Your task to perform on an android device: Show the shopping cart on walmart.com. Add macbook air to the cart on walmart.com Image 0: 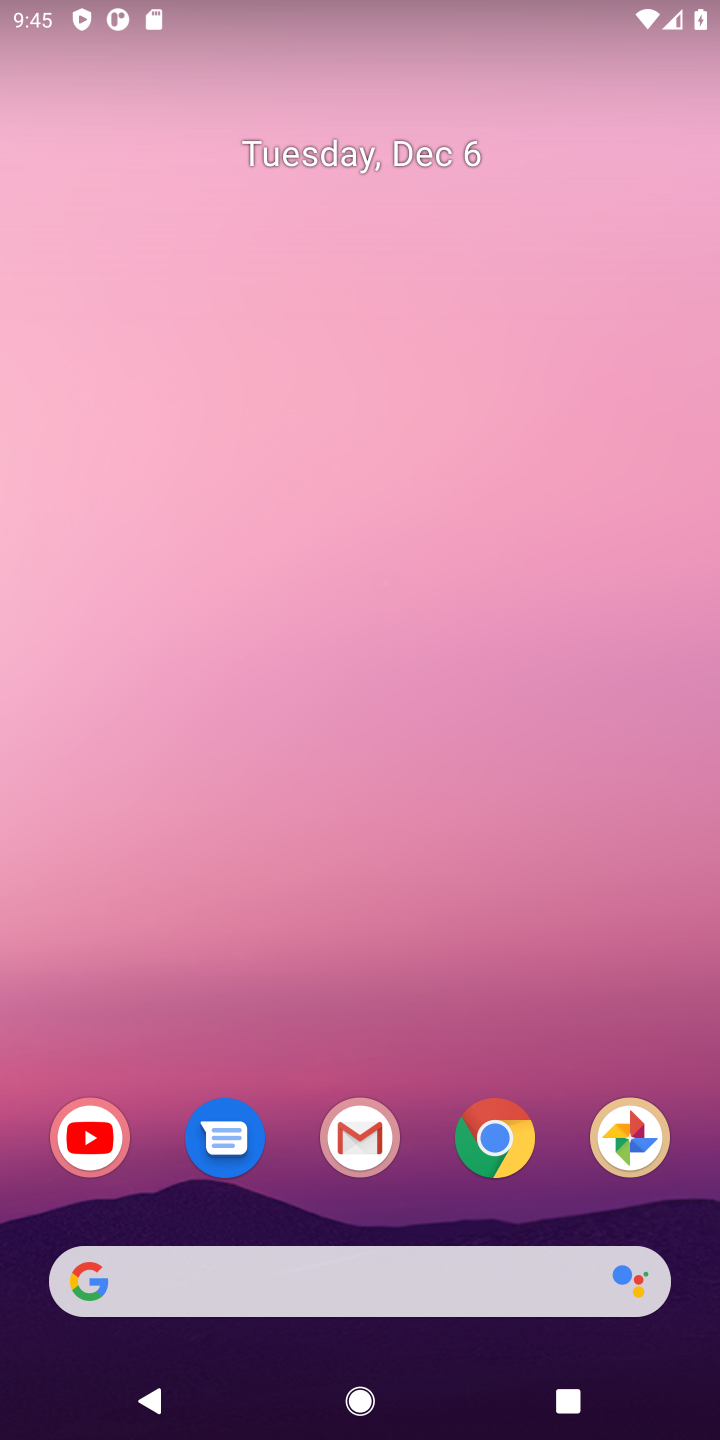
Step 0: click (488, 1139)
Your task to perform on an android device: Show the shopping cart on walmart.com. Add macbook air to the cart on walmart.com Image 1: 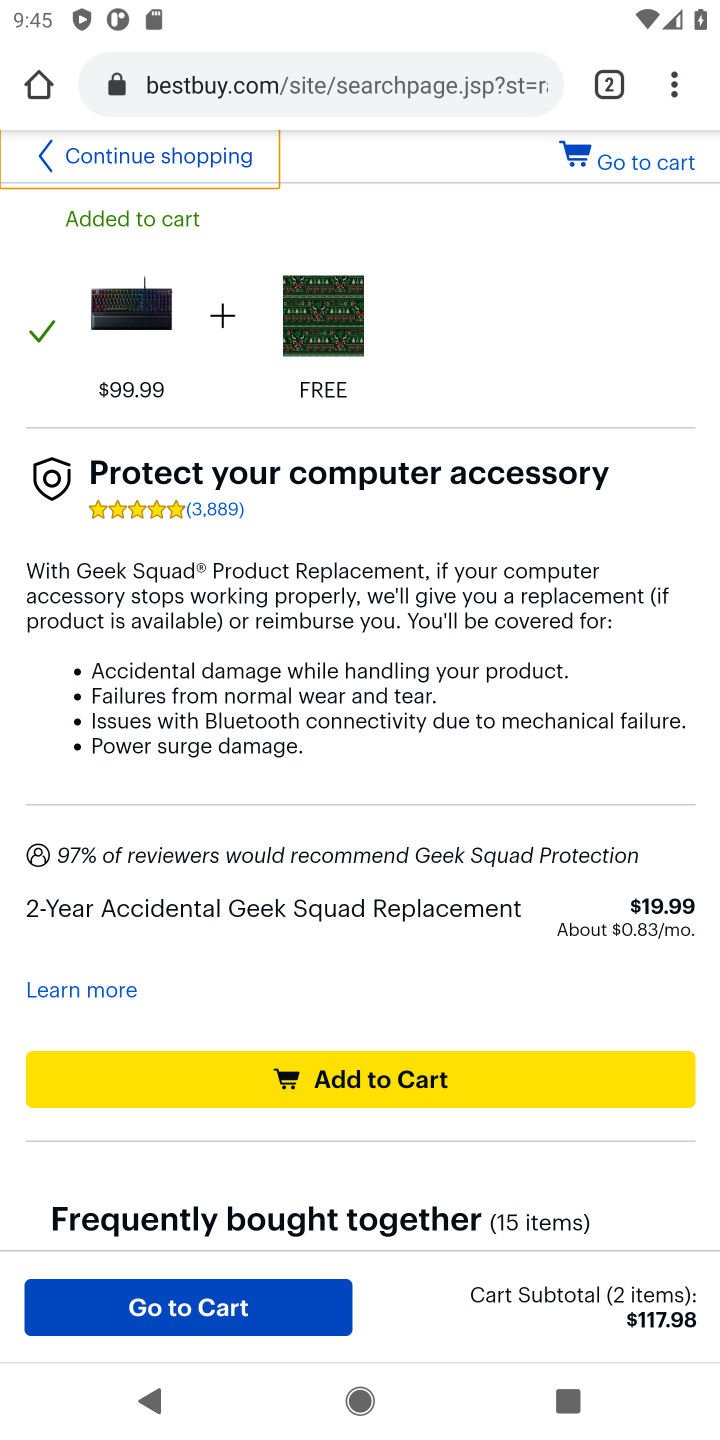
Step 1: click (280, 88)
Your task to perform on an android device: Show the shopping cart on walmart.com. Add macbook air to the cart on walmart.com Image 2: 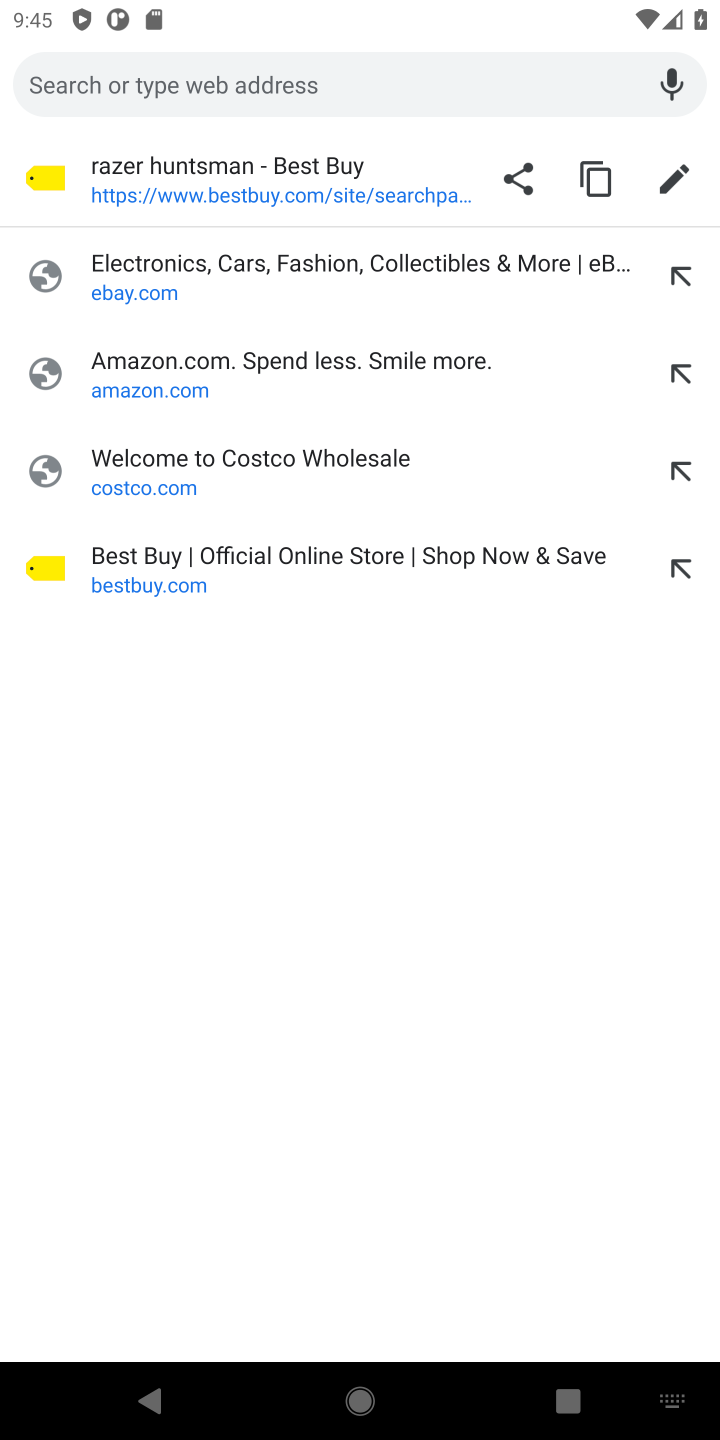
Step 2: type "walmart.com"
Your task to perform on an android device: Show the shopping cart on walmart.com. Add macbook air to the cart on walmart.com Image 3: 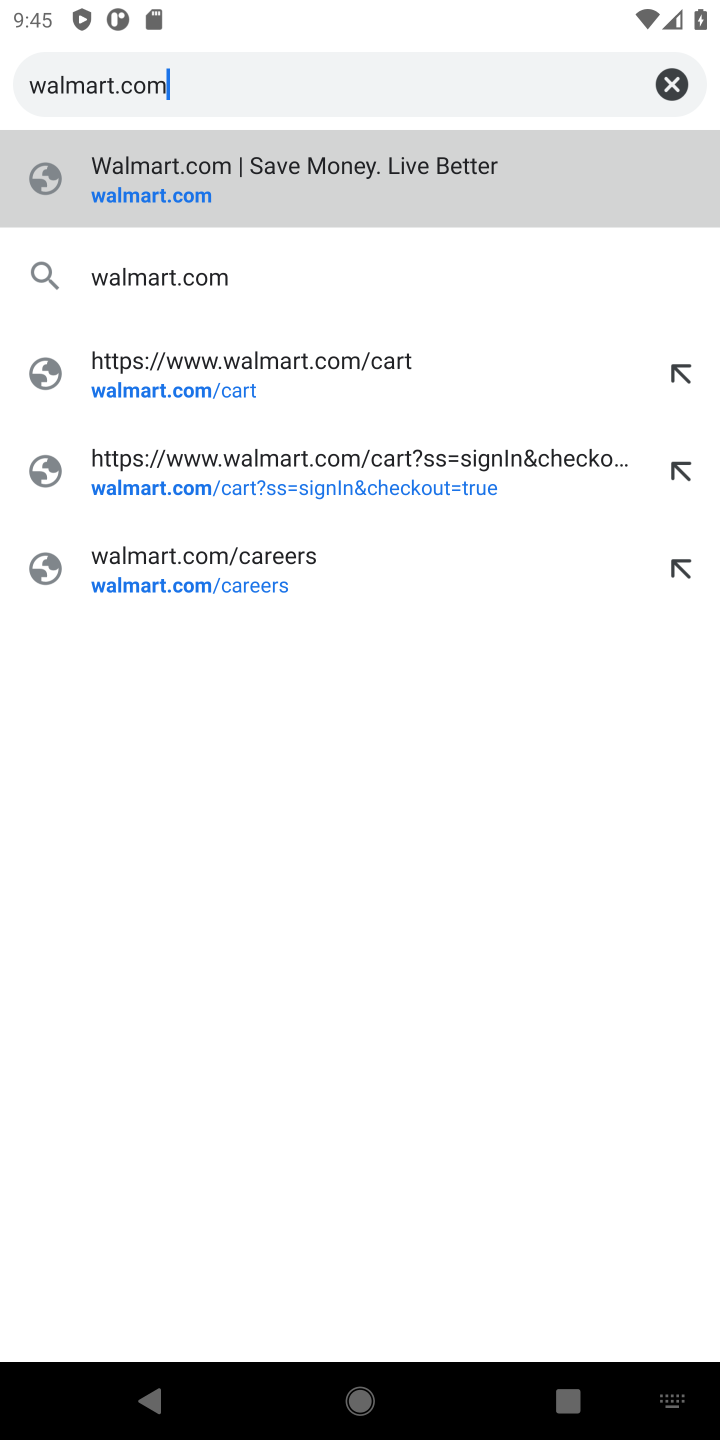
Step 3: click (144, 197)
Your task to perform on an android device: Show the shopping cart on walmart.com. Add macbook air to the cart on walmart.com Image 4: 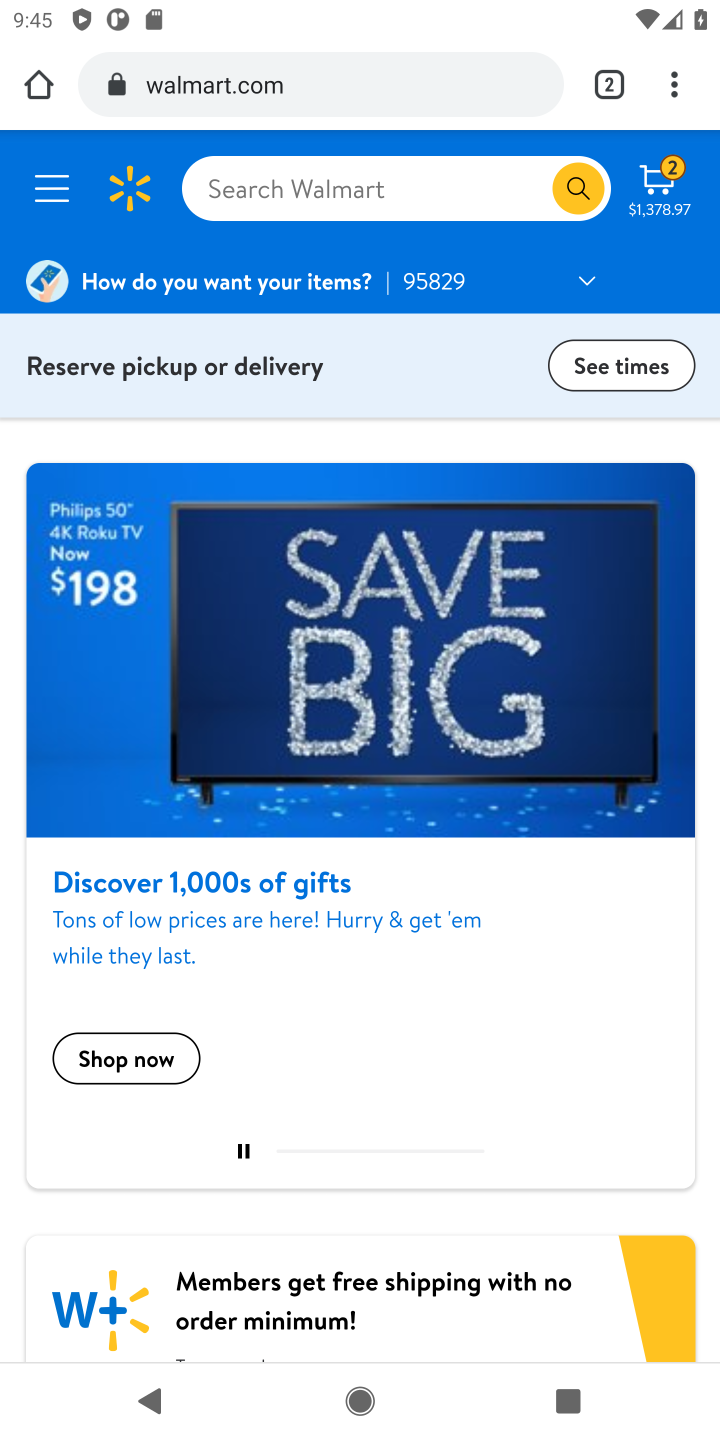
Step 4: click (658, 182)
Your task to perform on an android device: Show the shopping cart on walmart.com. Add macbook air to the cart on walmart.com Image 5: 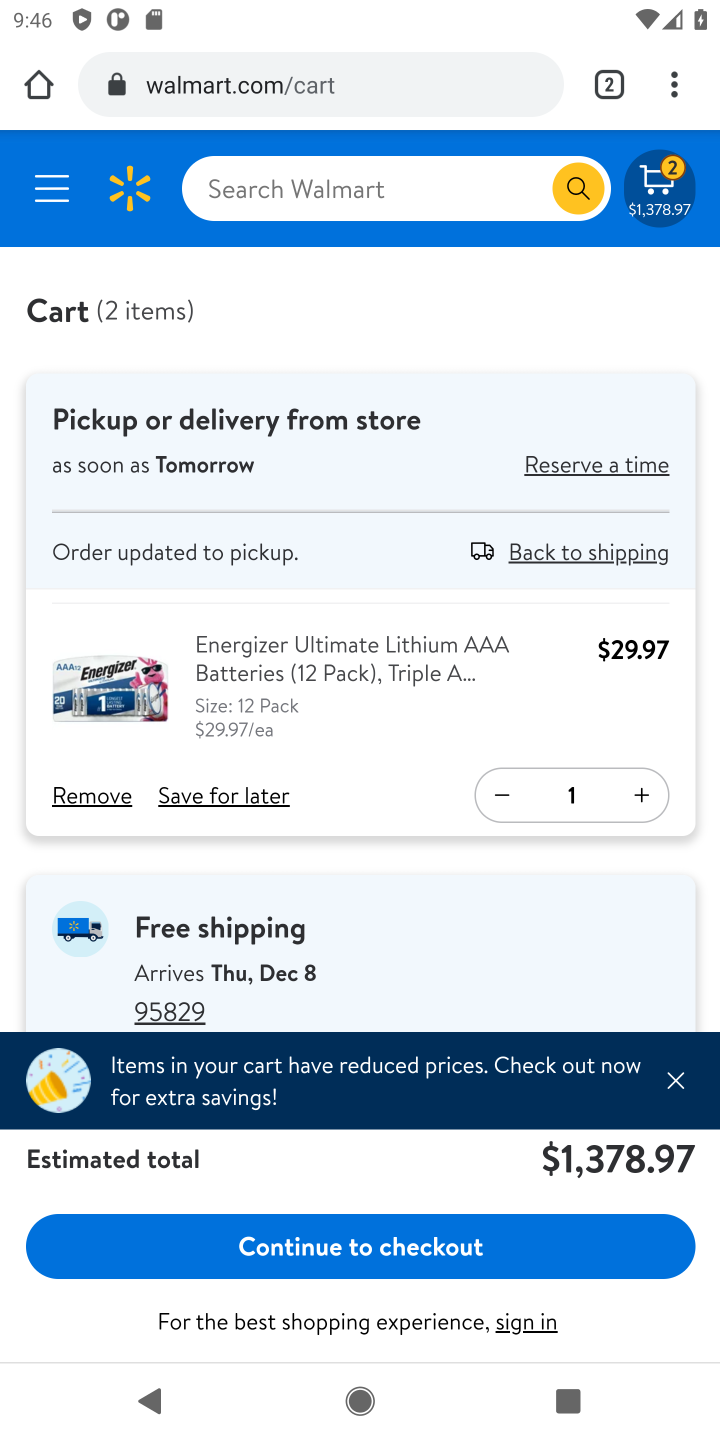
Step 5: click (318, 183)
Your task to perform on an android device: Show the shopping cart on walmart.com. Add macbook air to the cart on walmart.com Image 6: 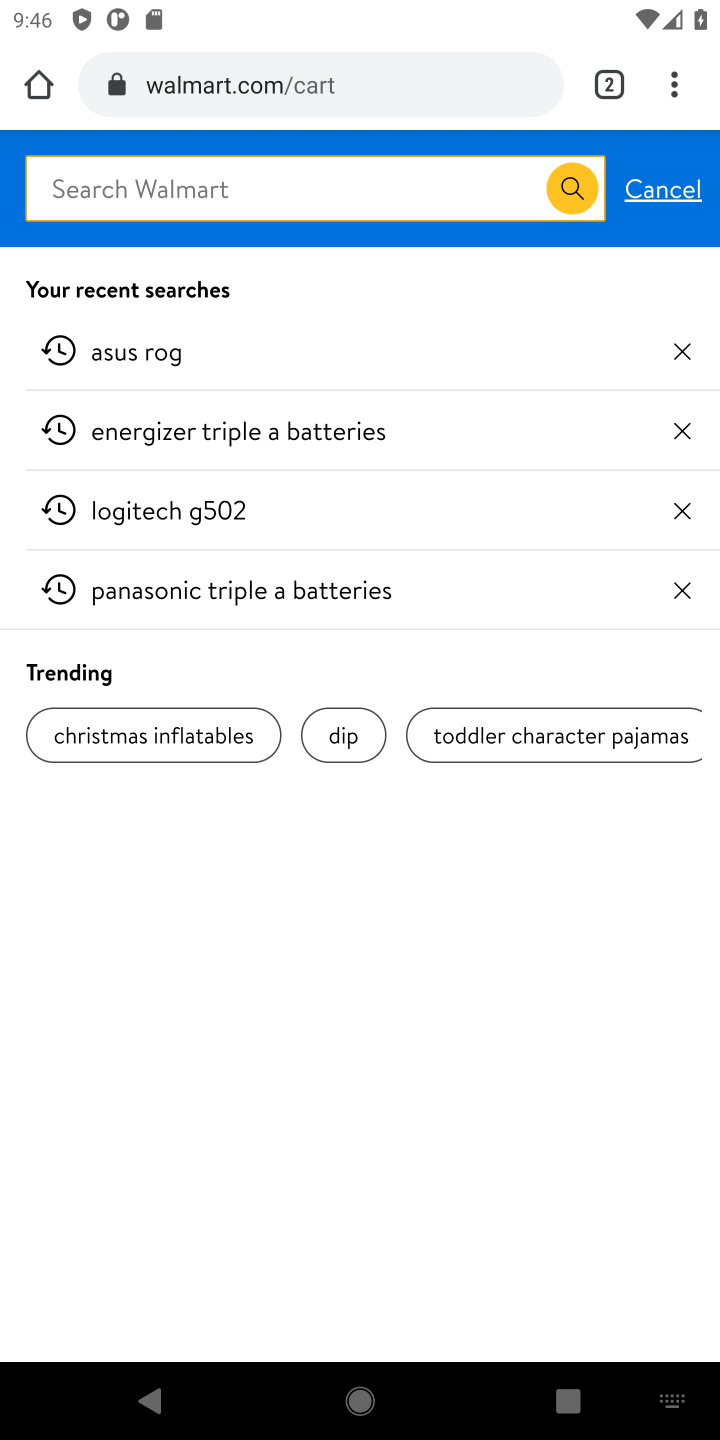
Step 6: type "macbook air"
Your task to perform on an android device: Show the shopping cart on walmart.com. Add macbook air to the cart on walmart.com Image 7: 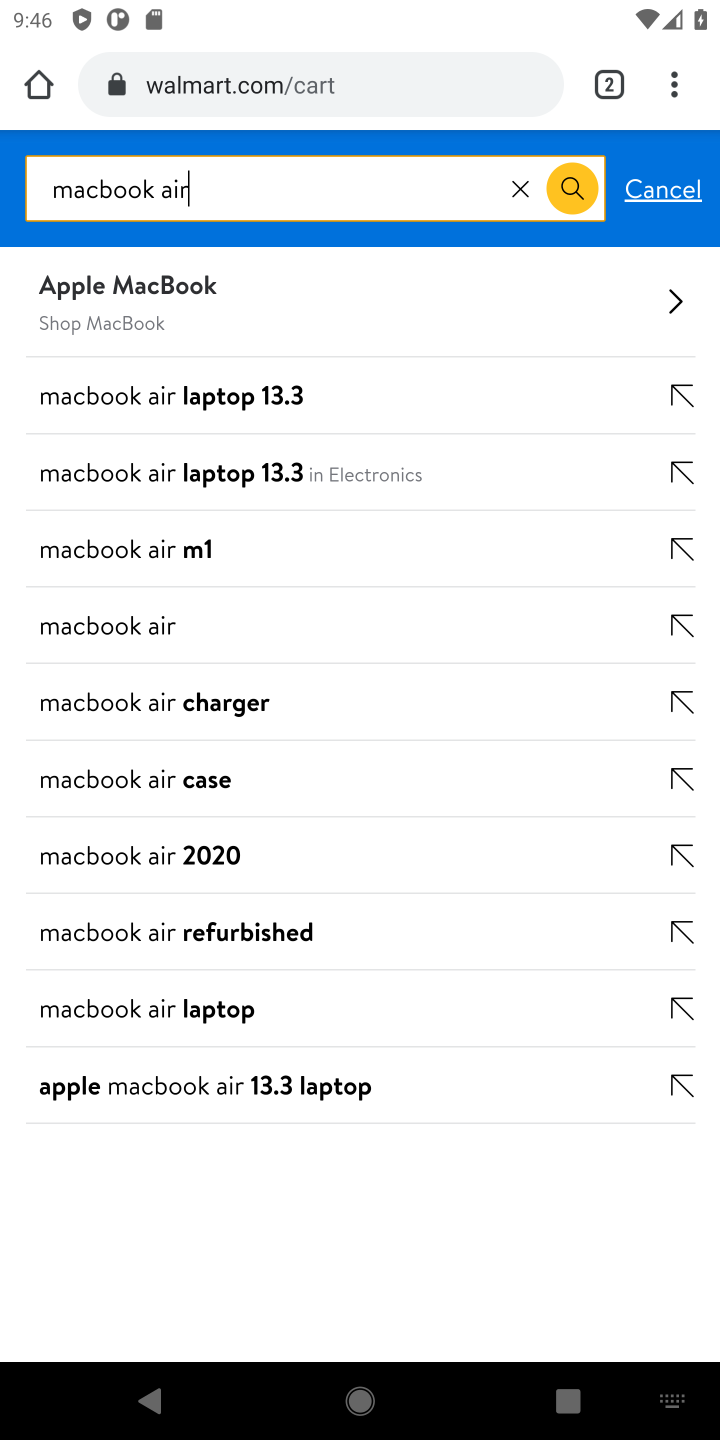
Step 7: click (161, 620)
Your task to perform on an android device: Show the shopping cart on walmart.com. Add macbook air to the cart on walmart.com Image 8: 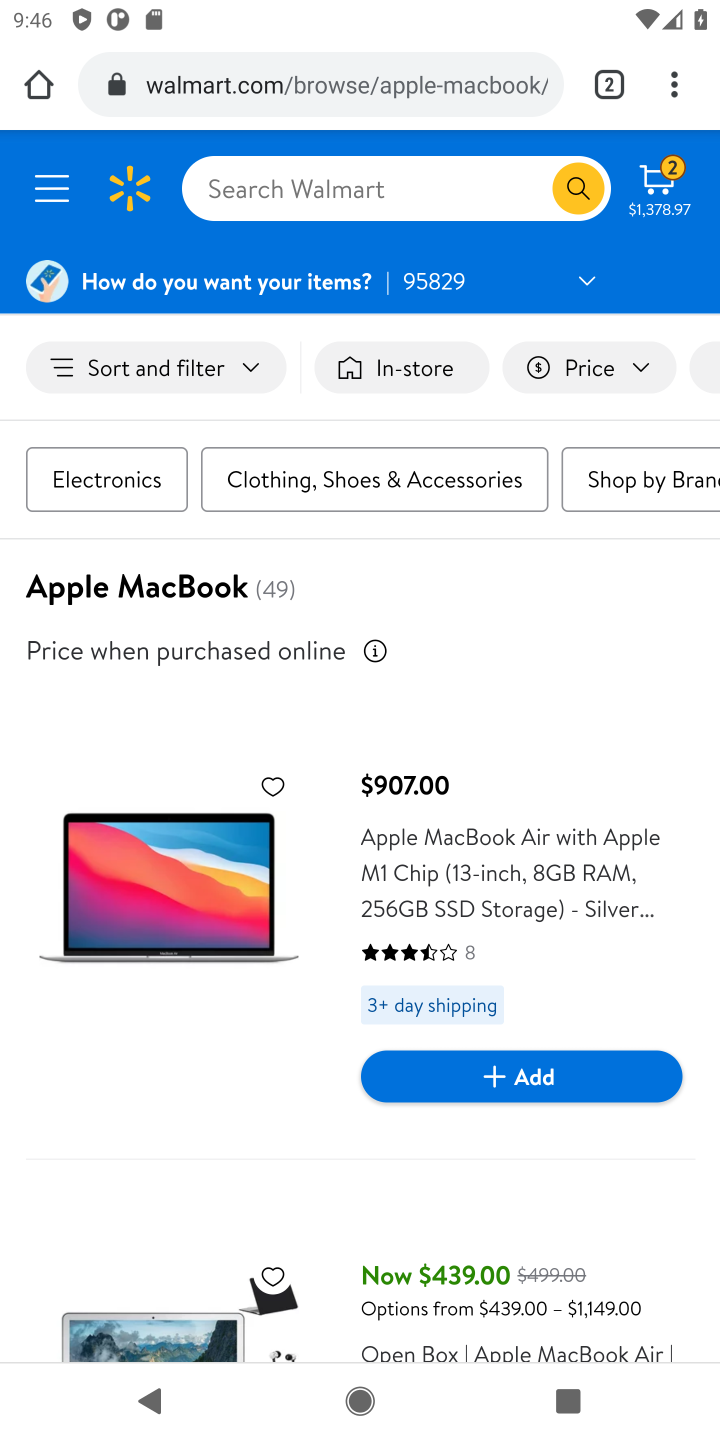
Step 8: click (492, 1071)
Your task to perform on an android device: Show the shopping cart on walmart.com. Add macbook air to the cart on walmart.com Image 9: 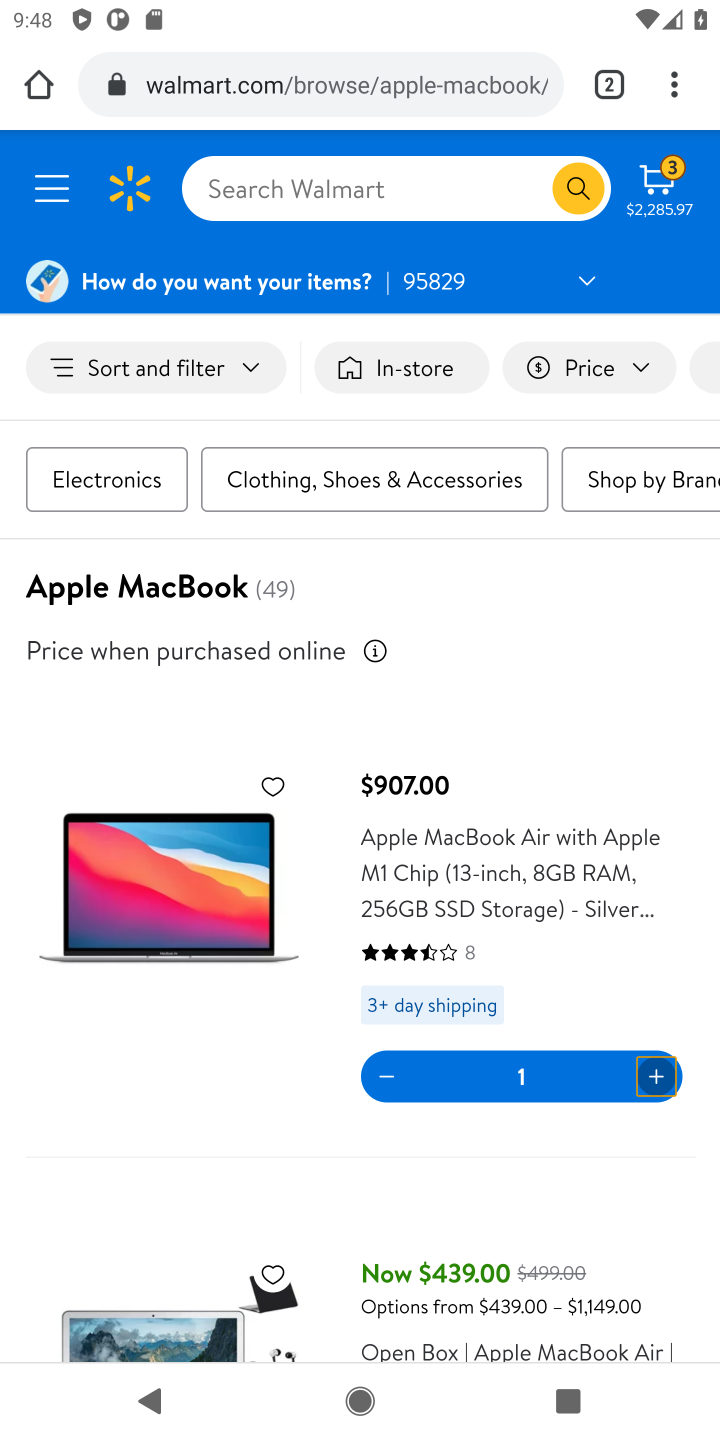
Step 9: click (659, 194)
Your task to perform on an android device: Show the shopping cart on walmart.com. Add macbook air to the cart on walmart.com Image 10: 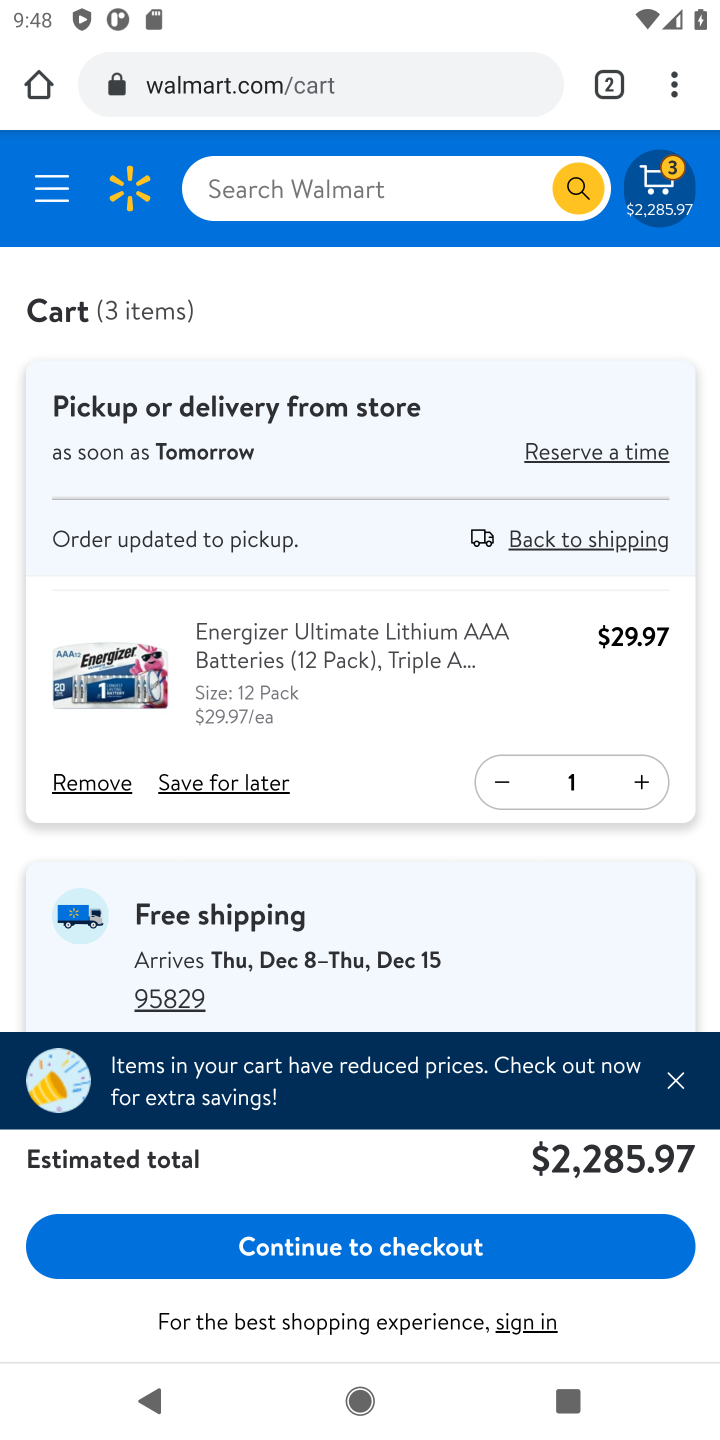
Step 10: click (332, 201)
Your task to perform on an android device: Show the shopping cart on walmart.com. Add macbook air to the cart on walmart.com Image 11: 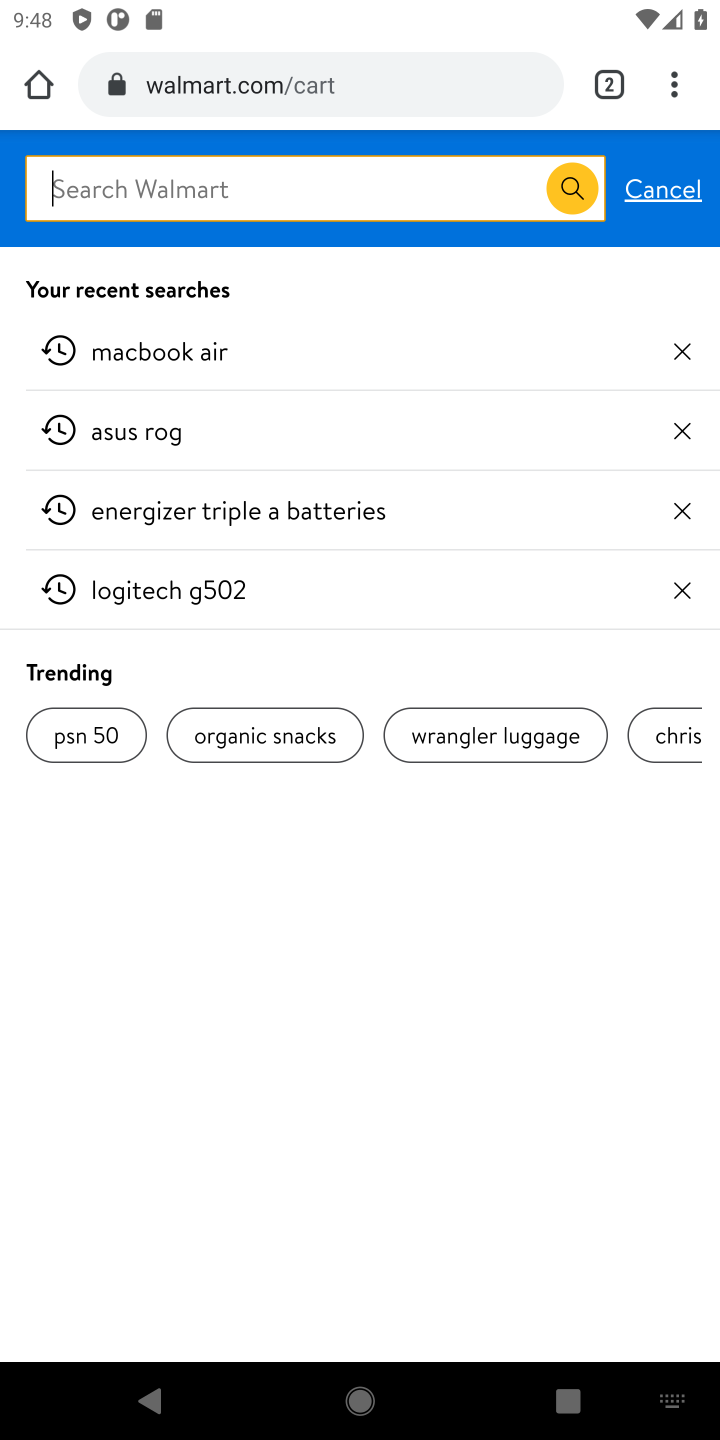
Step 11: type " macbook air"
Your task to perform on an android device: Show the shopping cart on walmart.com. Add macbook air to the cart on walmart.com Image 12: 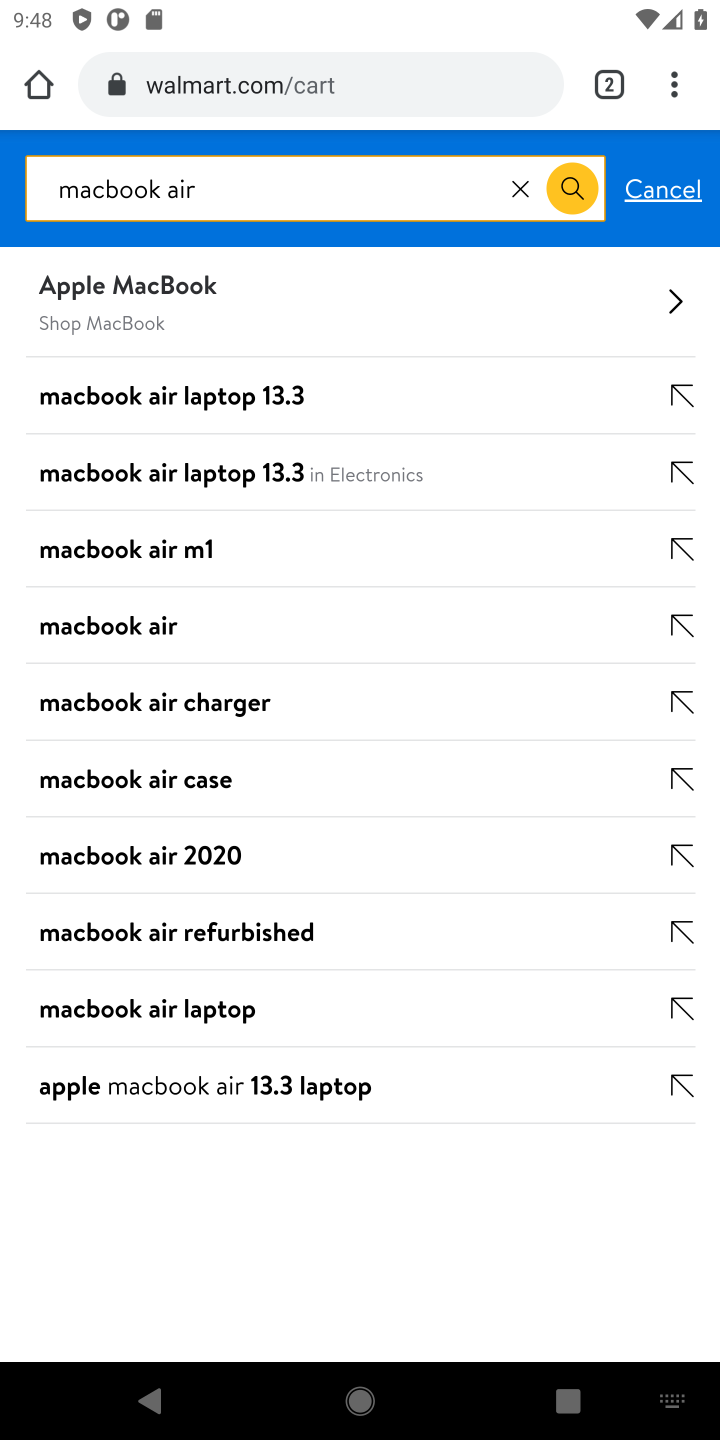
Step 12: click (164, 633)
Your task to perform on an android device: Show the shopping cart on walmart.com. Add macbook air to the cart on walmart.com Image 13: 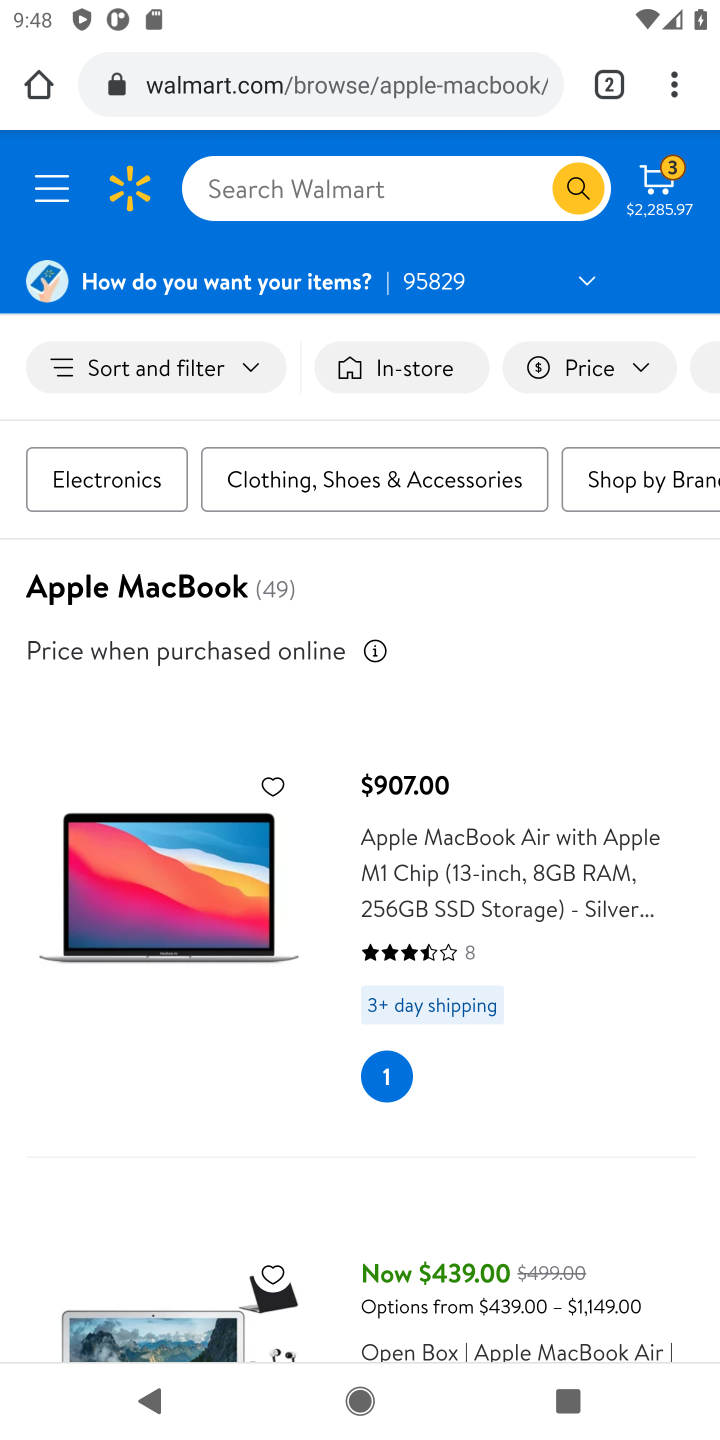
Step 13: click (391, 893)
Your task to perform on an android device: Show the shopping cart on walmart.com. Add macbook air to the cart on walmart.com Image 14: 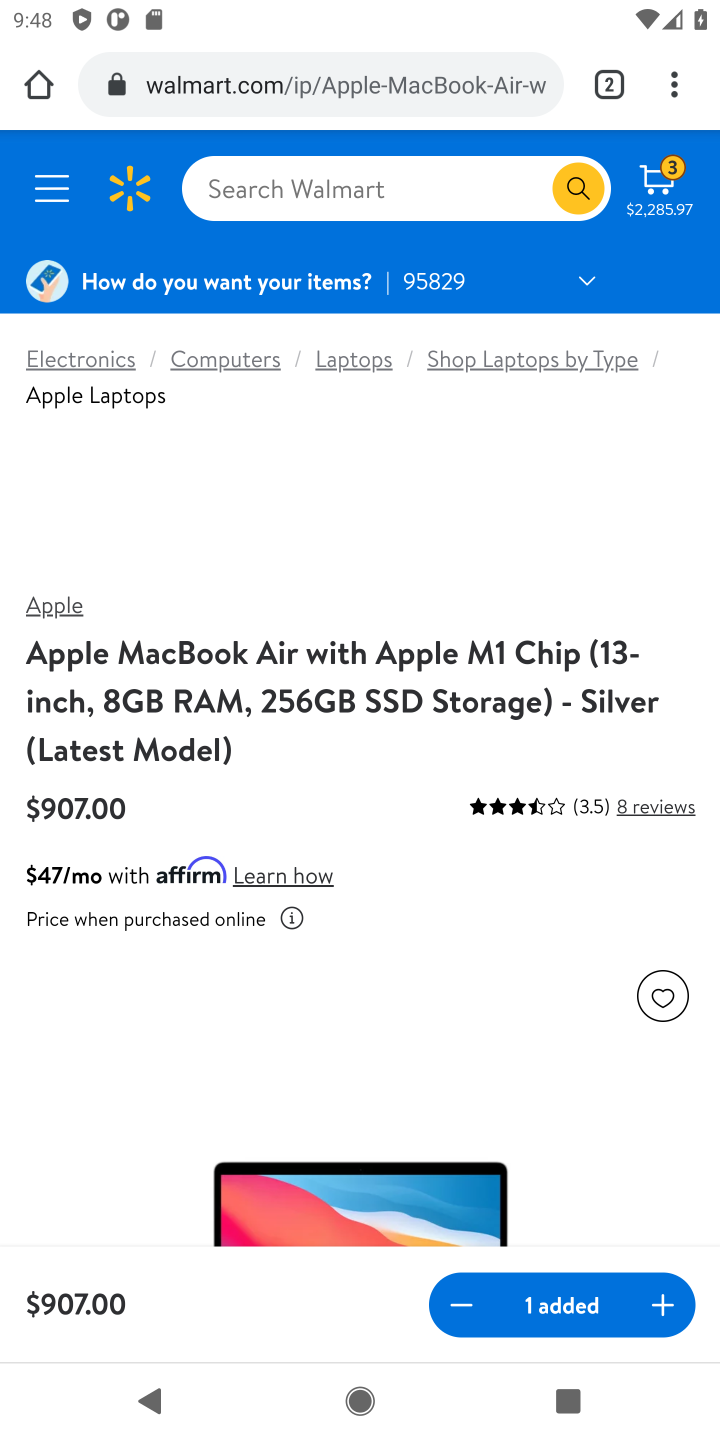
Step 14: drag from (349, 976) to (359, 571)
Your task to perform on an android device: Show the shopping cart on walmart.com. Add macbook air to the cart on walmart.com Image 15: 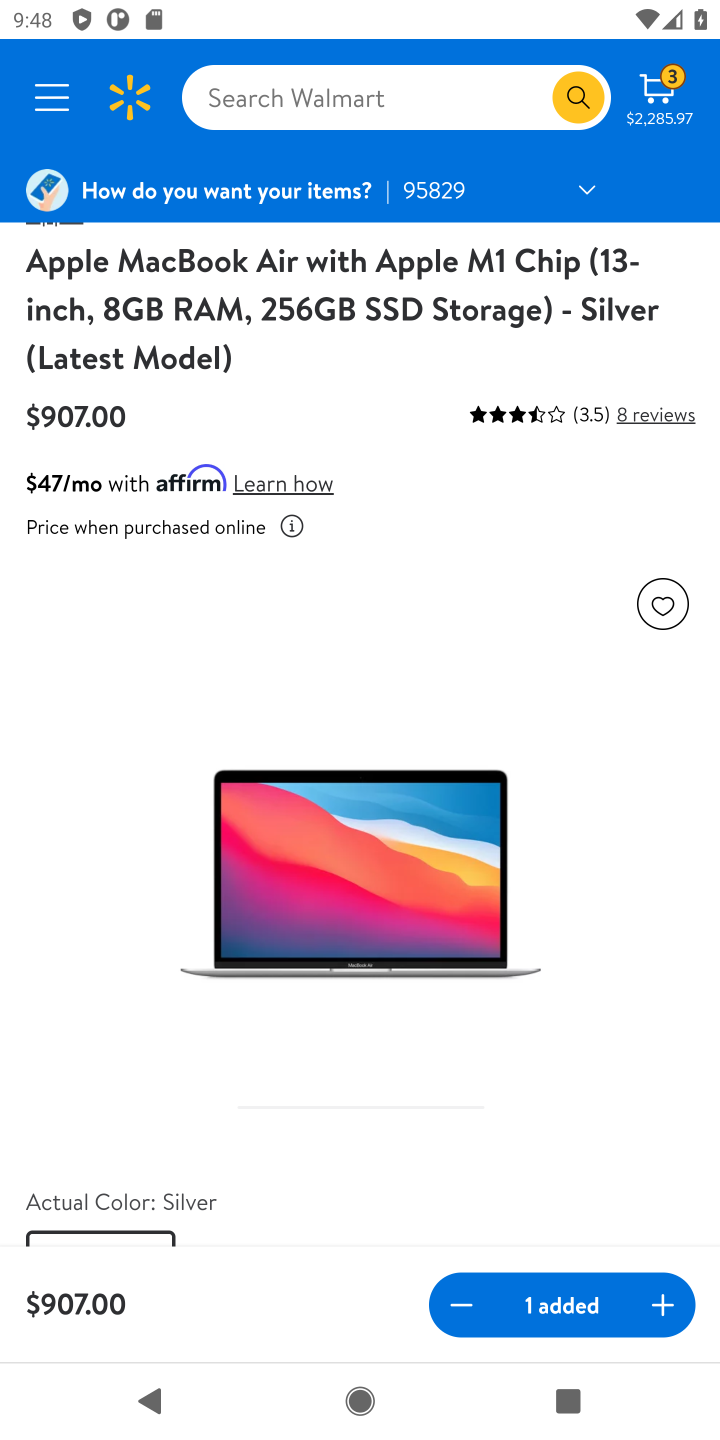
Step 15: click (665, 1308)
Your task to perform on an android device: Show the shopping cart on walmart.com. Add macbook air to the cart on walmart.com Image 16: 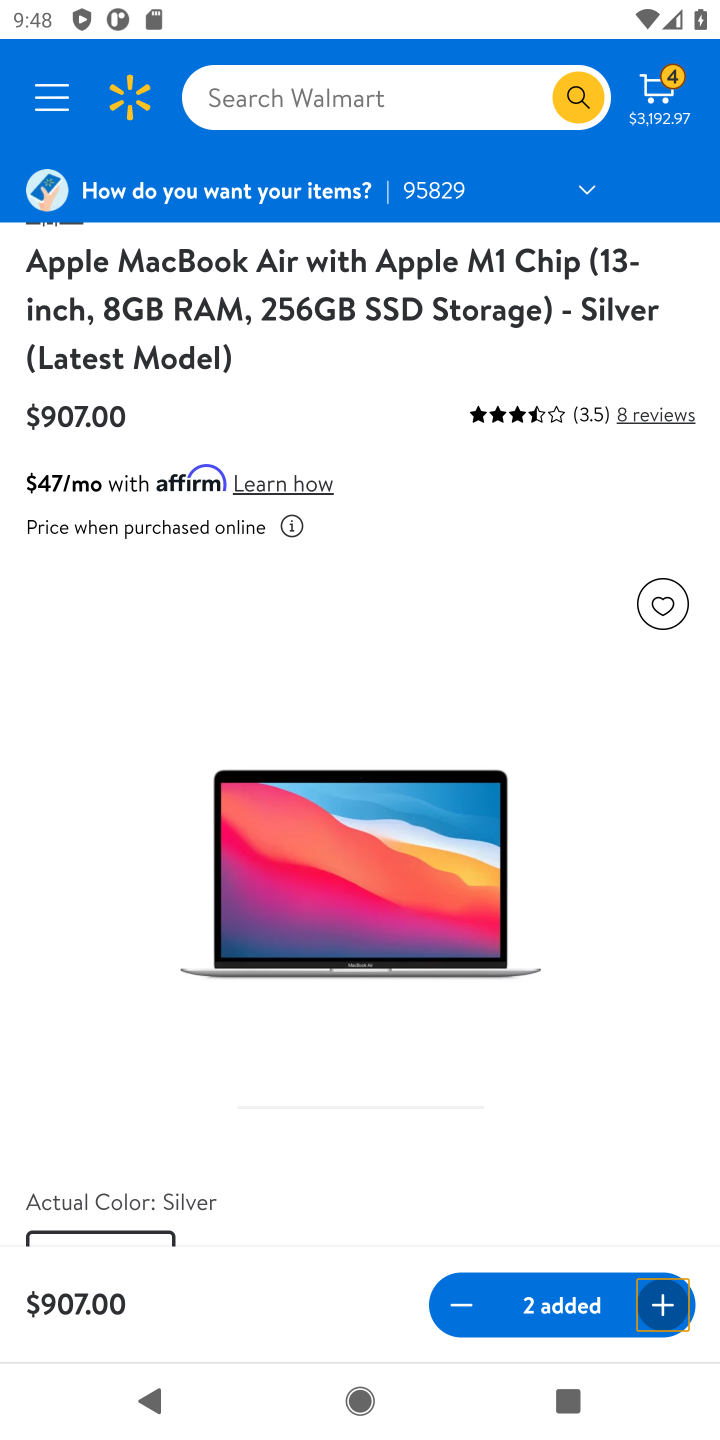
Step 16: task complete